Your task to perform on an android device: allow notifications from all sites in the chrome app Image 0: 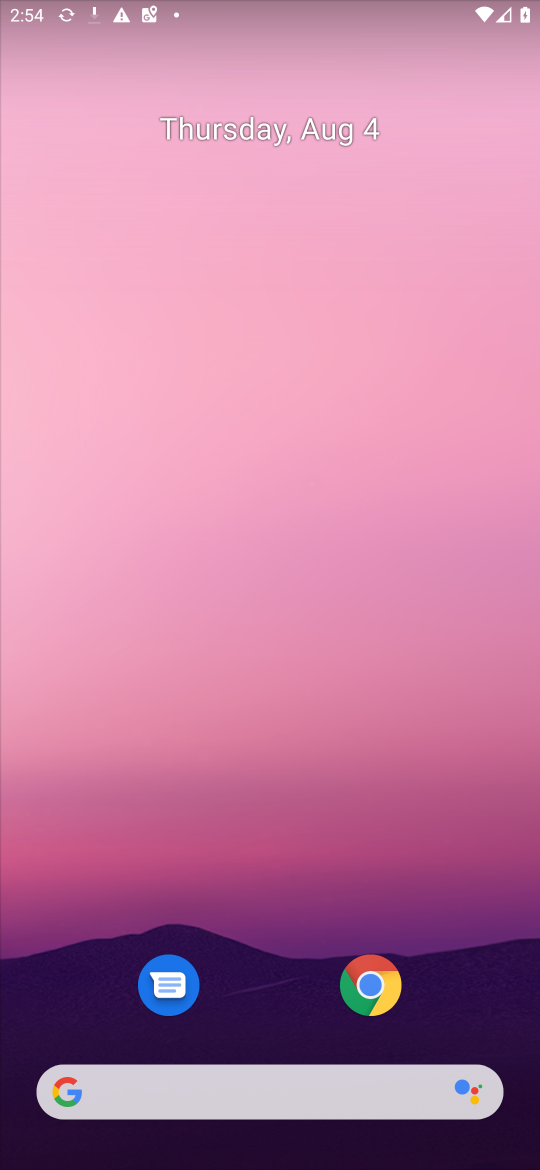
Step 0: click (34, 58)
Your task to perform on an android device: allow notifications from all sites in the chrome app Image 1: 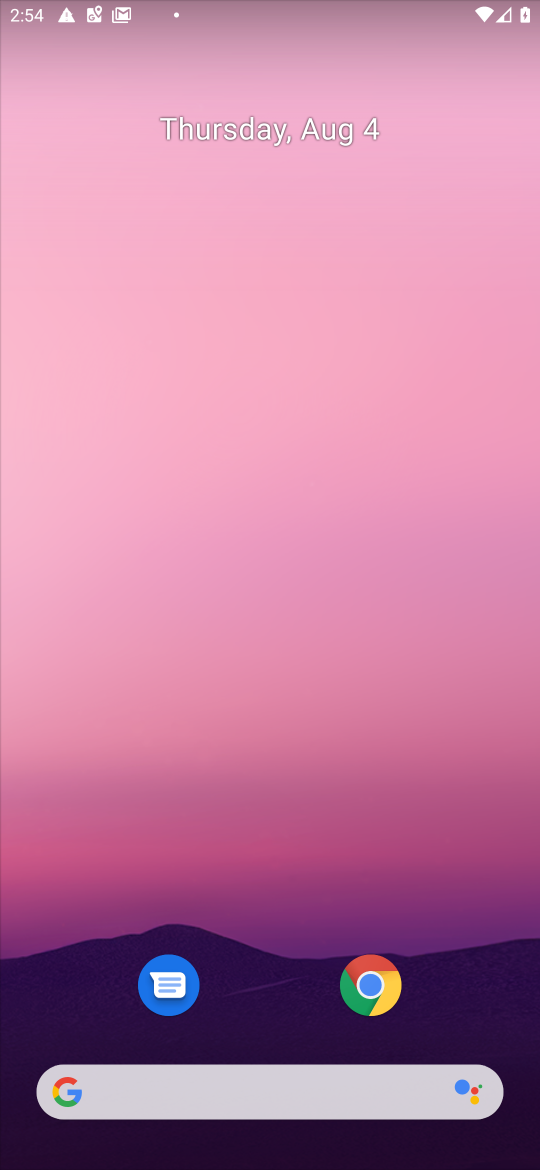
Step 1: drag from (287, 1000) to (216, 38)
Your task to perform on an android device: allow notifications from all sites in the chrome app Image 2: 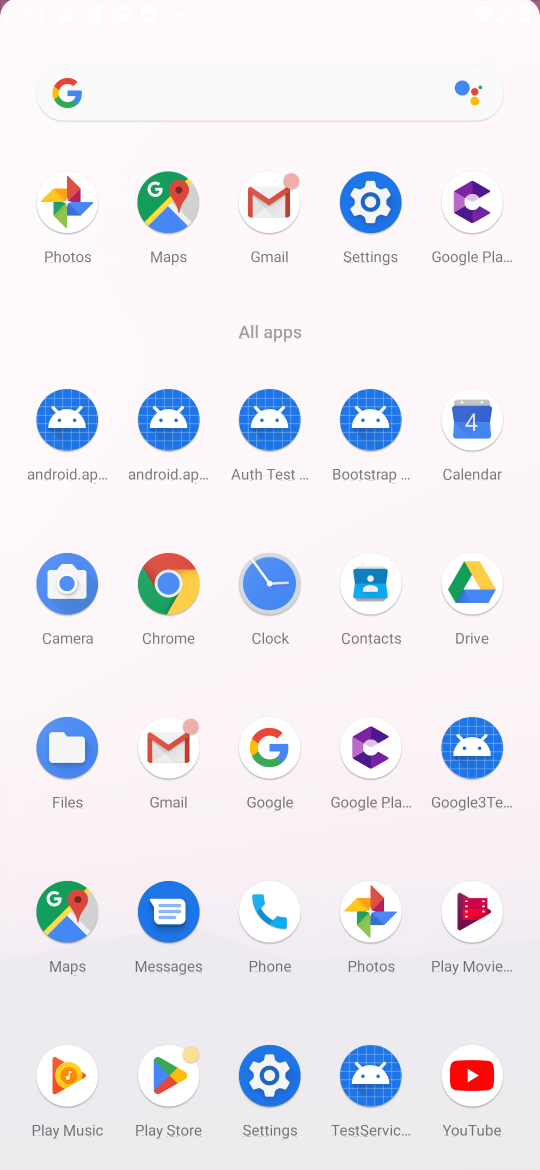
Step 2: drag from (281, 827) to (288, 124)
Your task to perform on an android device: allow notifications from all sites in the chrome app Image 3: 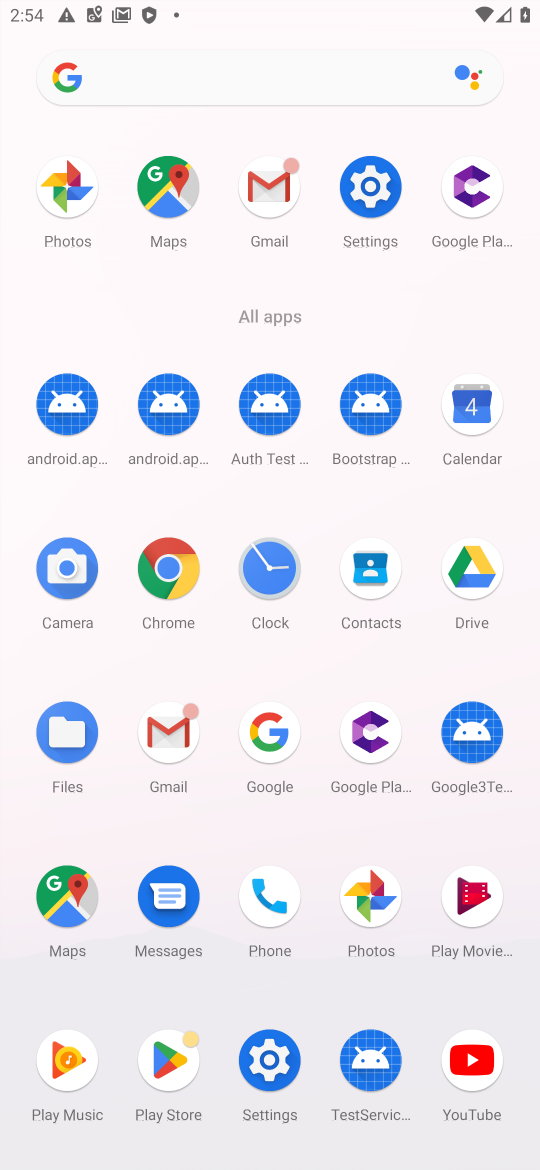
Step 3: click (167, 578)
Your task to perform on an android device: allow notifications from all sites in the chrome app Image 4: 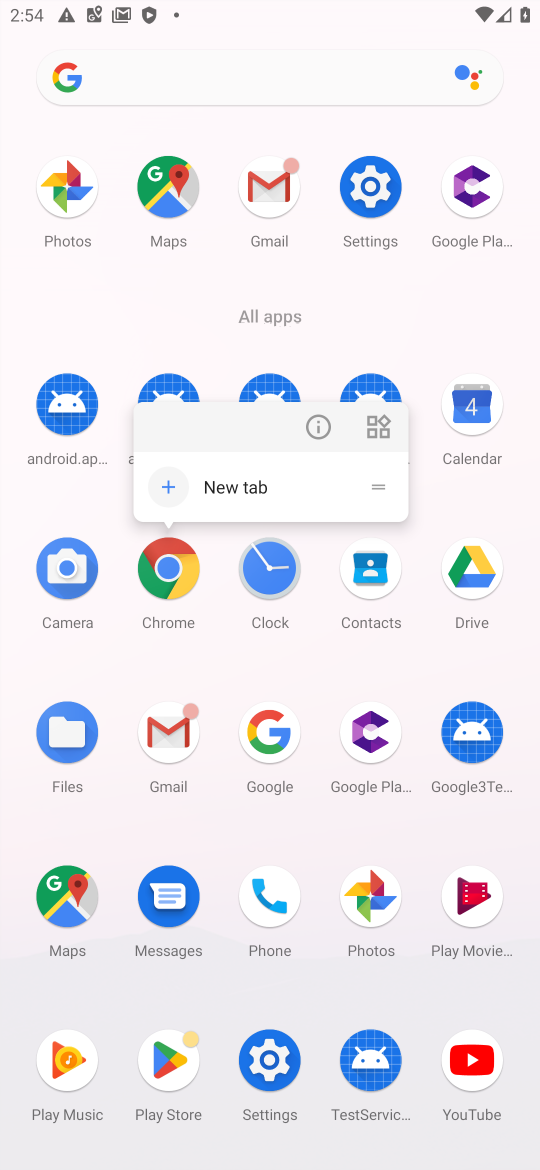
Step 4: click (161, 568)
Your task to perform on an android device: allow notifications from all sites in the chrome app Image 5: 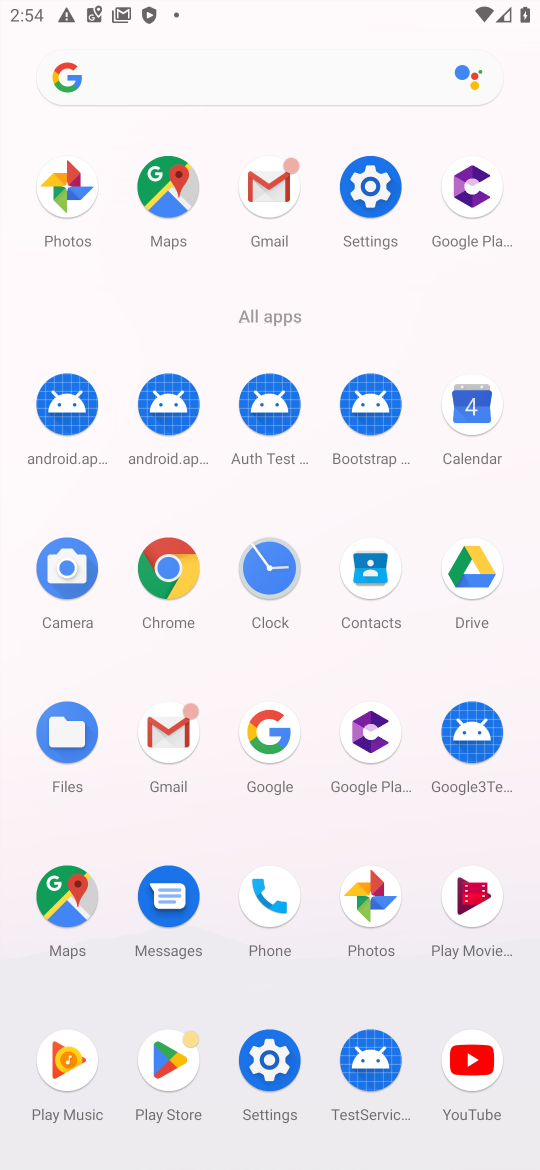
Step 5: click (161, 568)
Your task to perform on an android device: allow notifications from all sites in the chrome app Image 6: 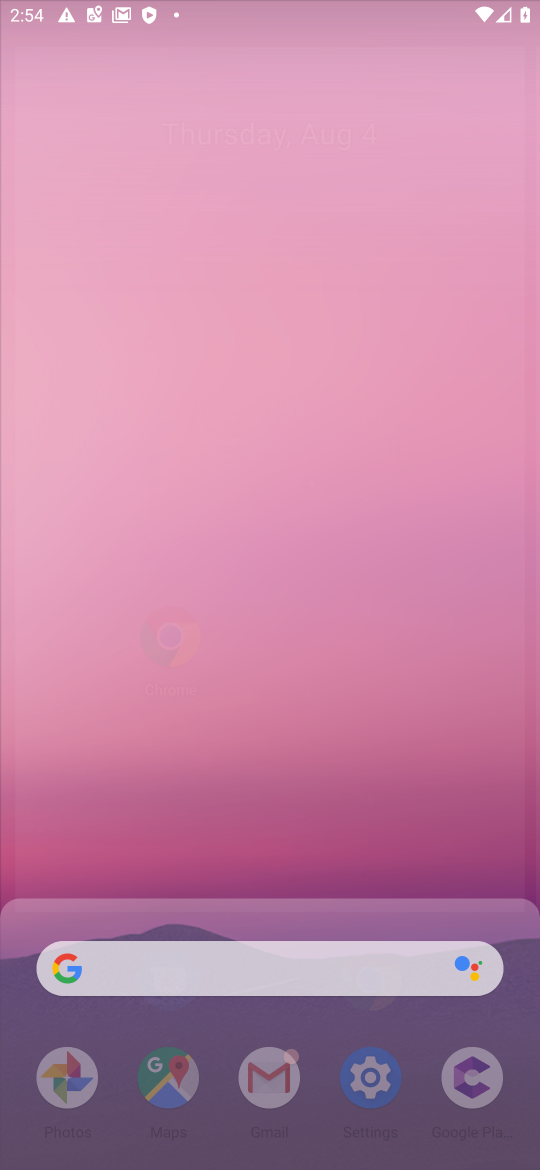
Step 6: click (187, 557)
Your task to perform on an android device: allow notifications from all sites in the chrome app Image 7: 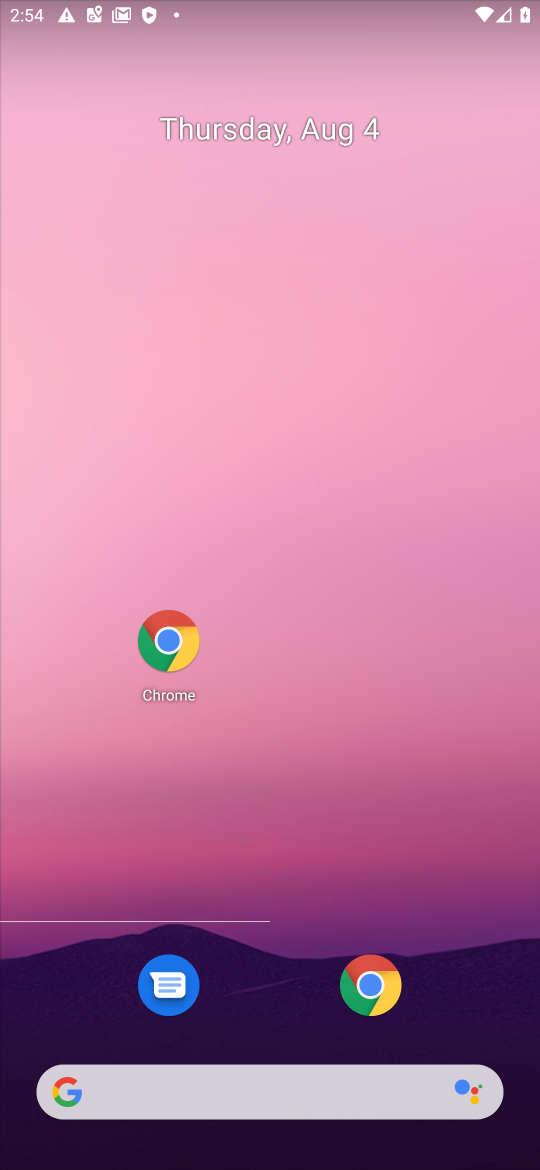
Step 7: drag from (266, 911) to (266, 207)
Your task to perform on an android device: allow notifications from all sites in the chrome app Image 8: 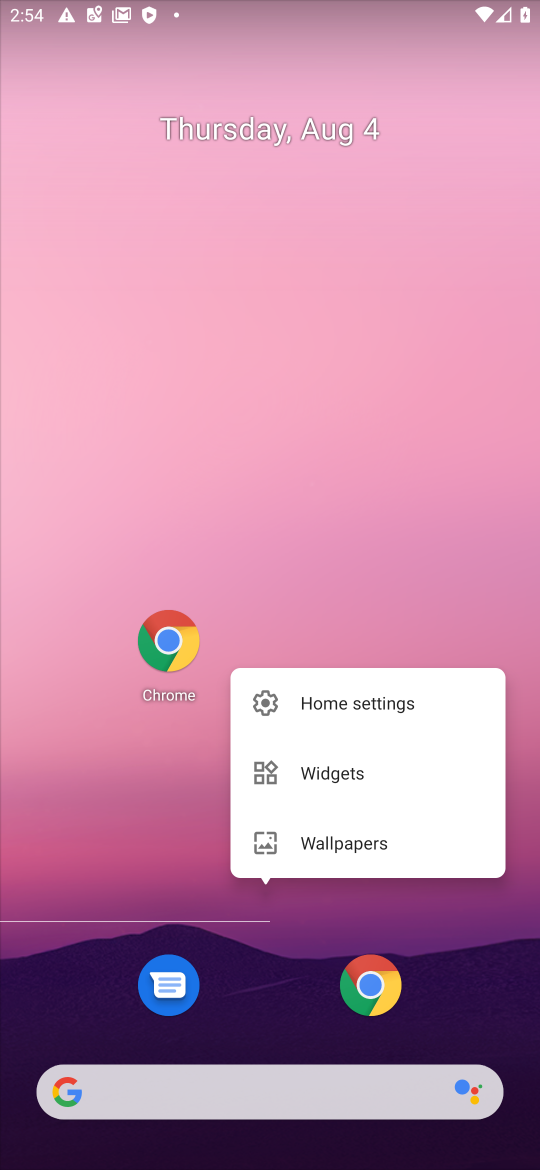
Step 8: drag from (274, 903) to (206, 172)
Your task to perform on an android device: allow notifications from all sites in the chrome app Image 9: 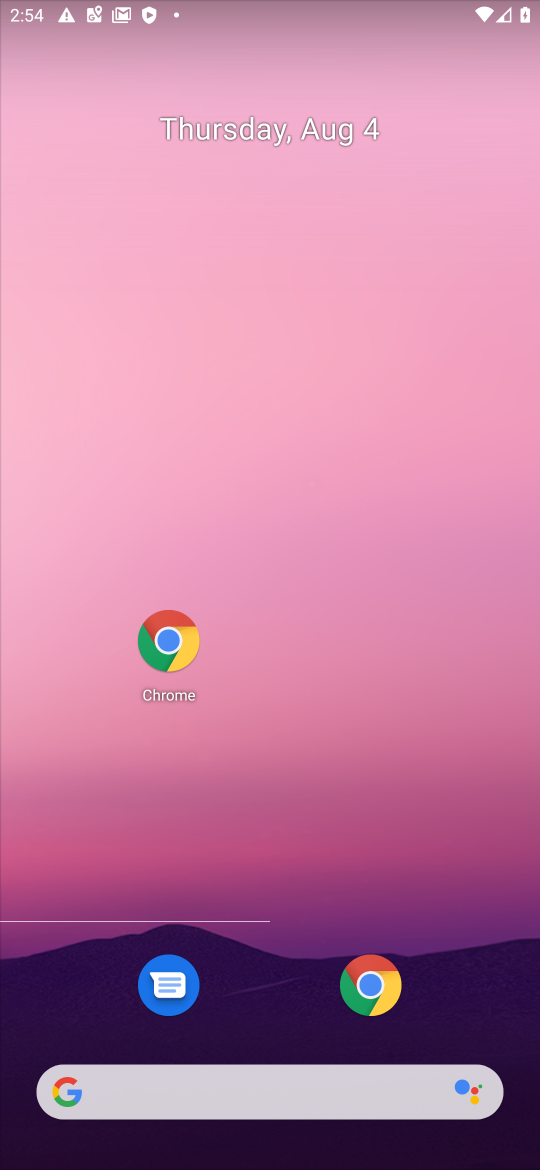
Step 9: drag from (287, 908) to (233, 176)
Your task to perform on an android device: allow notifications from all sites in the chrome app Image 10: 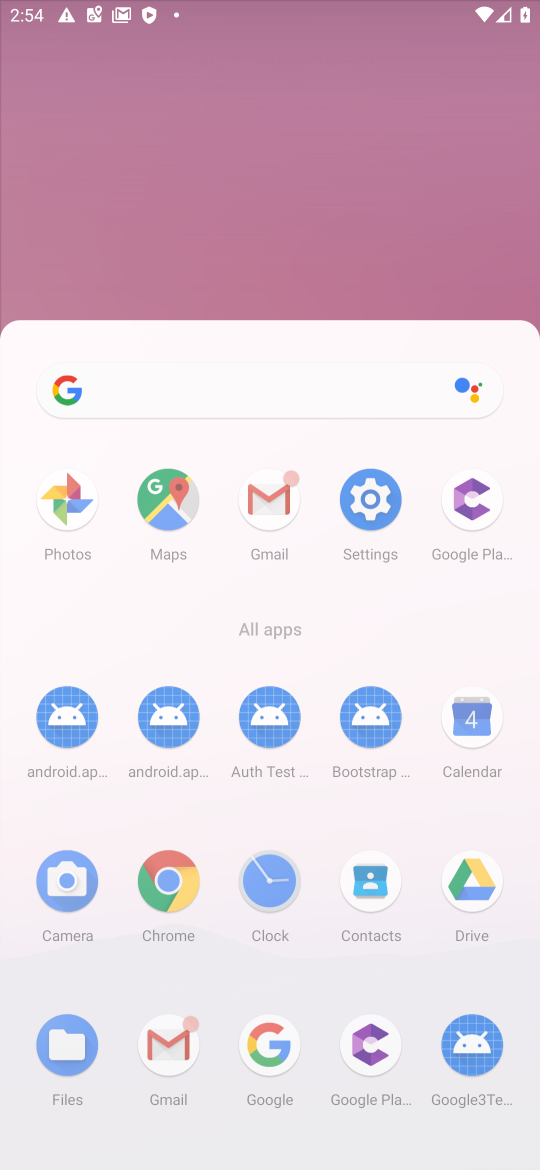
Step 10: click (202, 16)
Your task to perform on an android device: allow notifications from all sites in the chrome app Image 11: 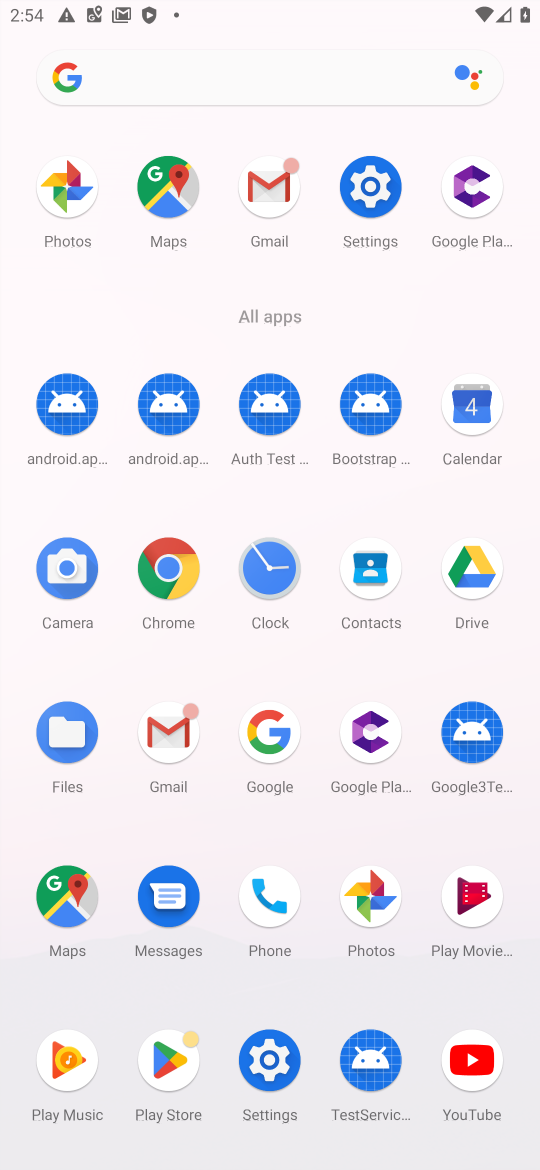
Step 11: click (181, 563)
Your task to perform on an android device: allow notifications from all sites in the chrome app Image 12: 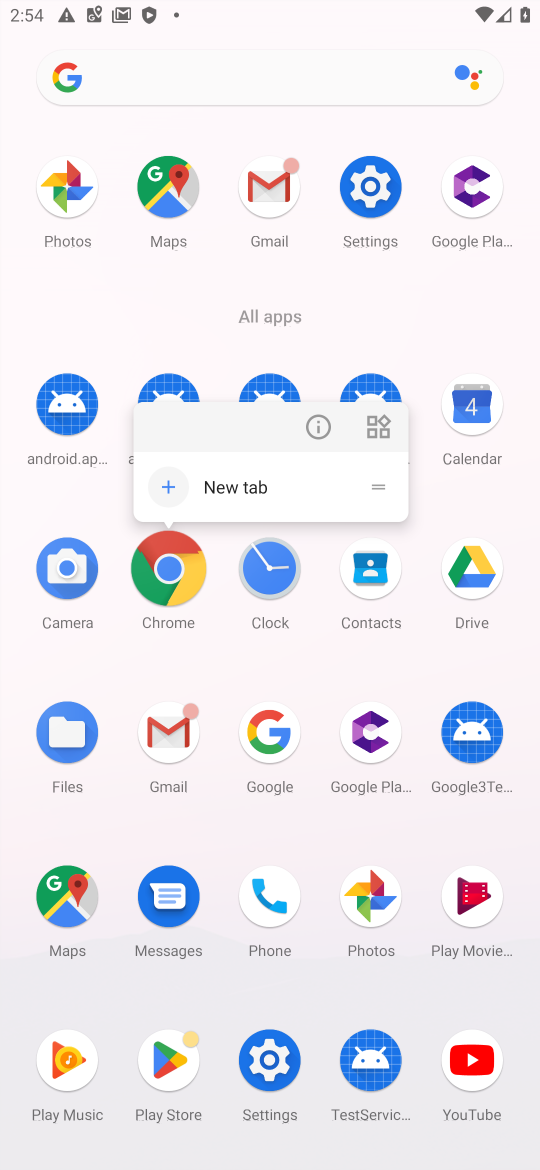
Step 12: click (172, 564)
Your task to perform on an android device: allow notifications from all sites in the chrome app Image 13: 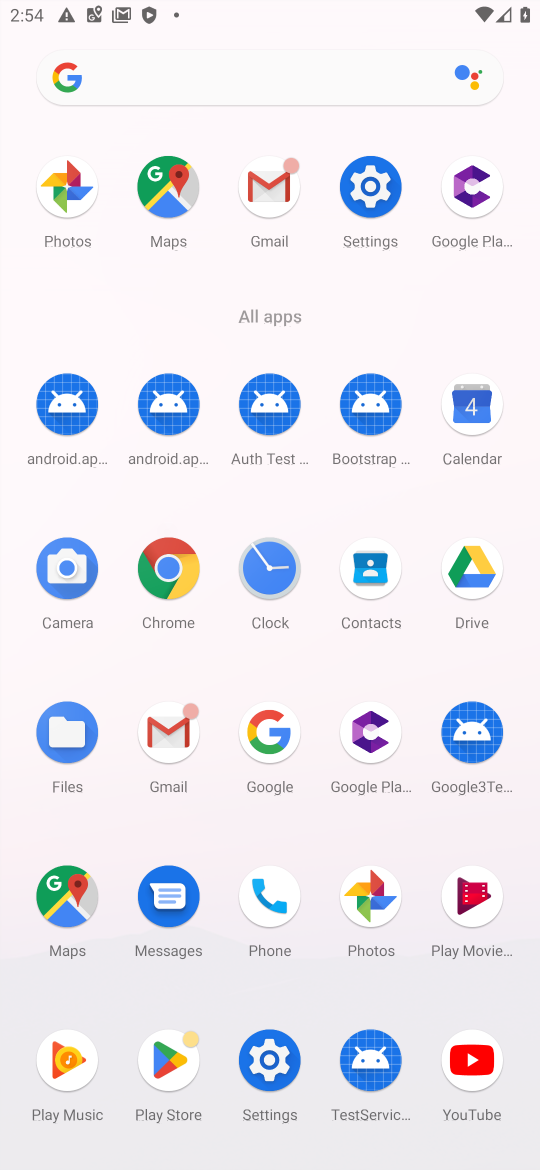
Step 13: click (169, 567)
Your task to perform on an android device: allow notifications from all sites in the chrome app Image 14: 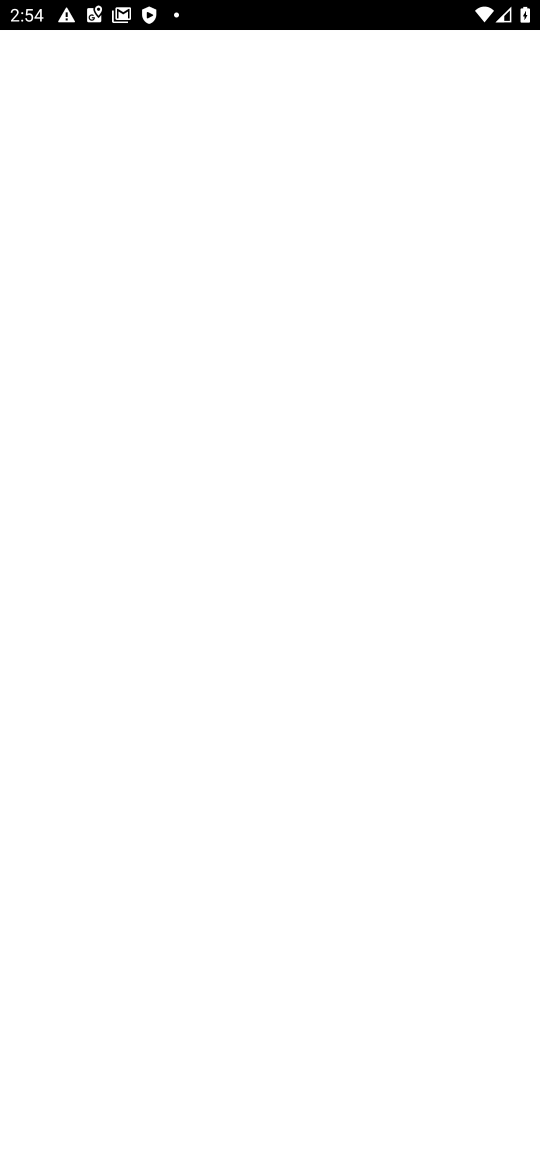
Step 14: click (165, 576)
Your task to perform on an android device: allow notifications from all sites in the chrome app Image 15: 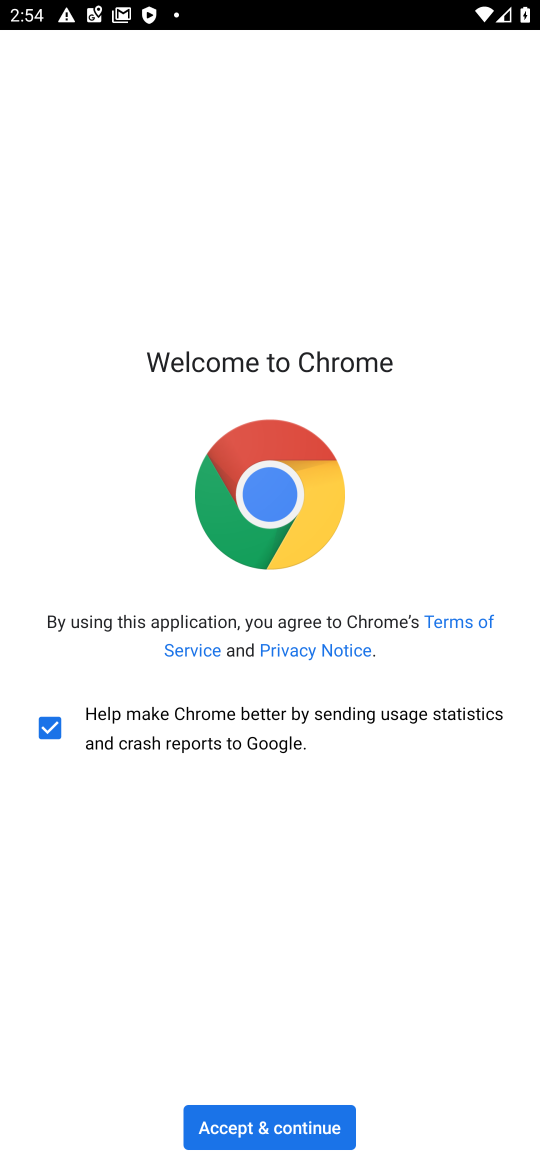
Step 15: click (261, 1123)
Your task to perform on an android device: allow notifications from all sites in the chrome app Image 16: 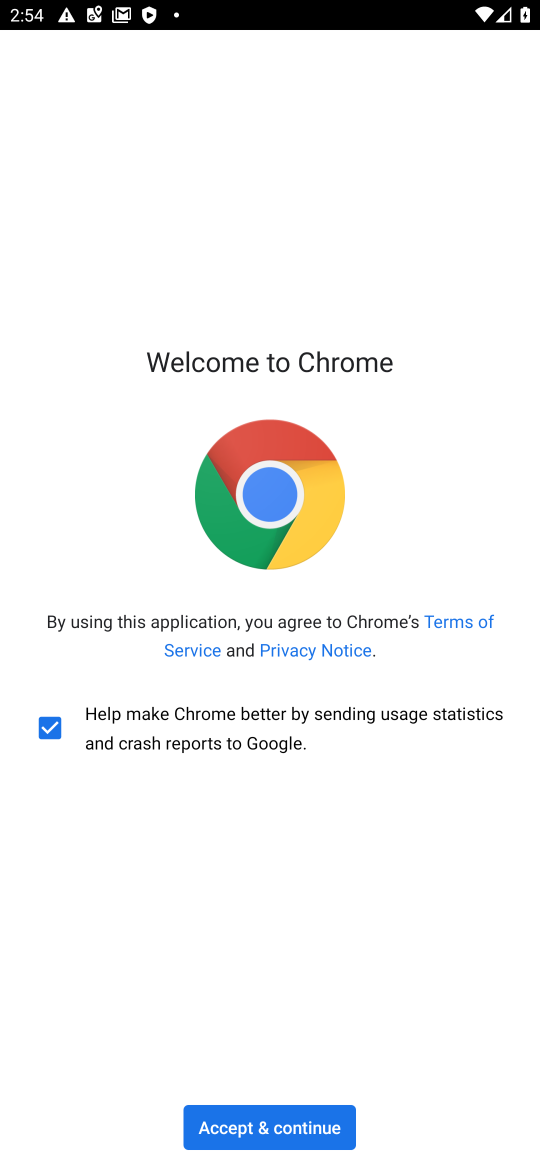
Step 16: click (261, 1123)
Your task to perform on an android device: allow notifications from all sites in the chrome app Image 17: 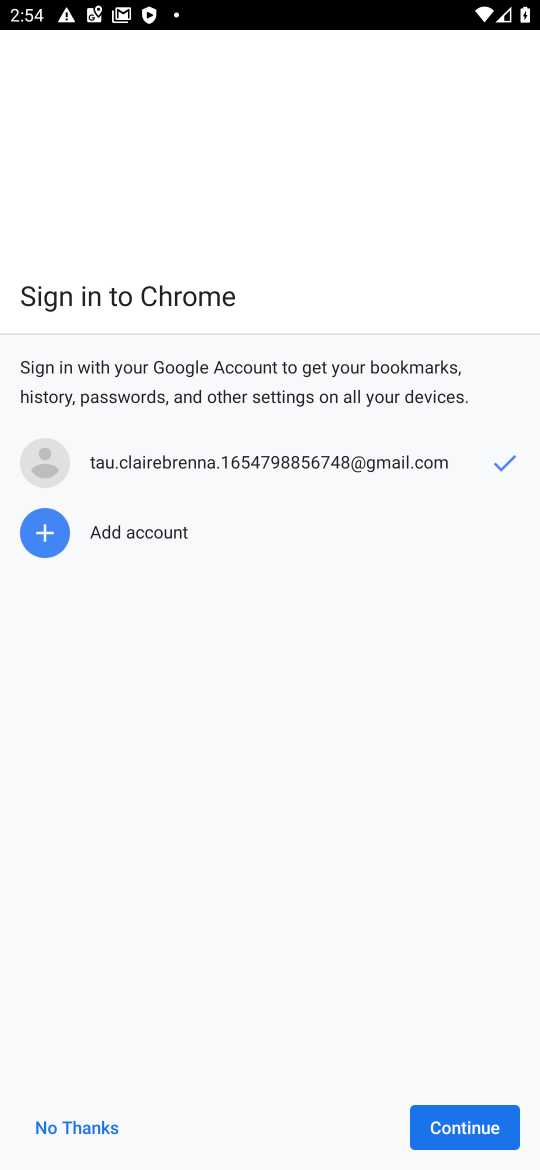
Step 17: click (70, 1115)
Your task to perform on an android device: allow notifications from all sites in the chrome app Image 18: 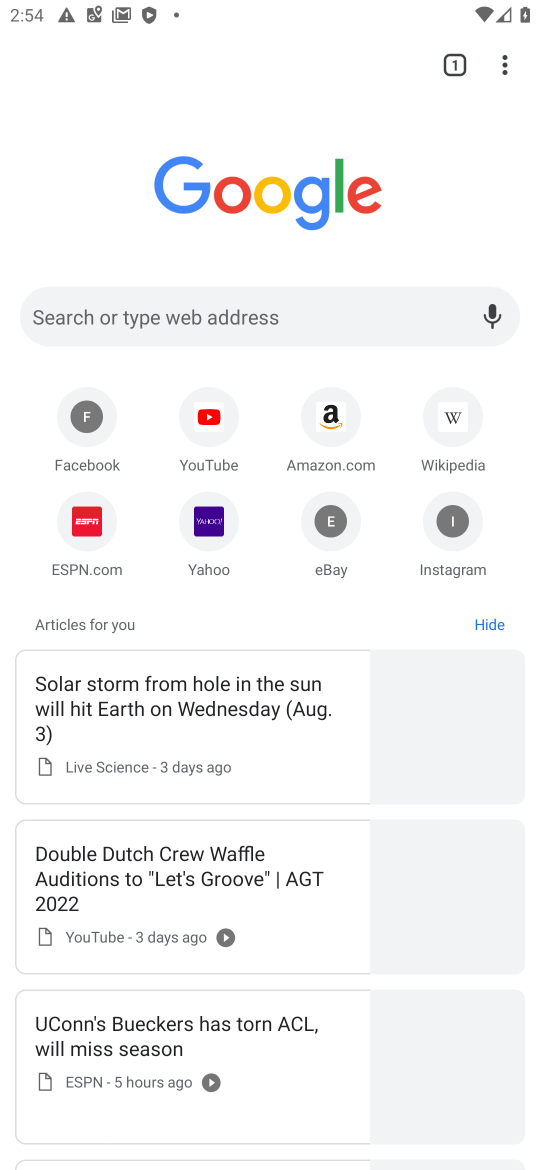
Step 18: click (500, 60)
Your task to perform on an android device: allow notifications from all sites in the chrome app Image 19: 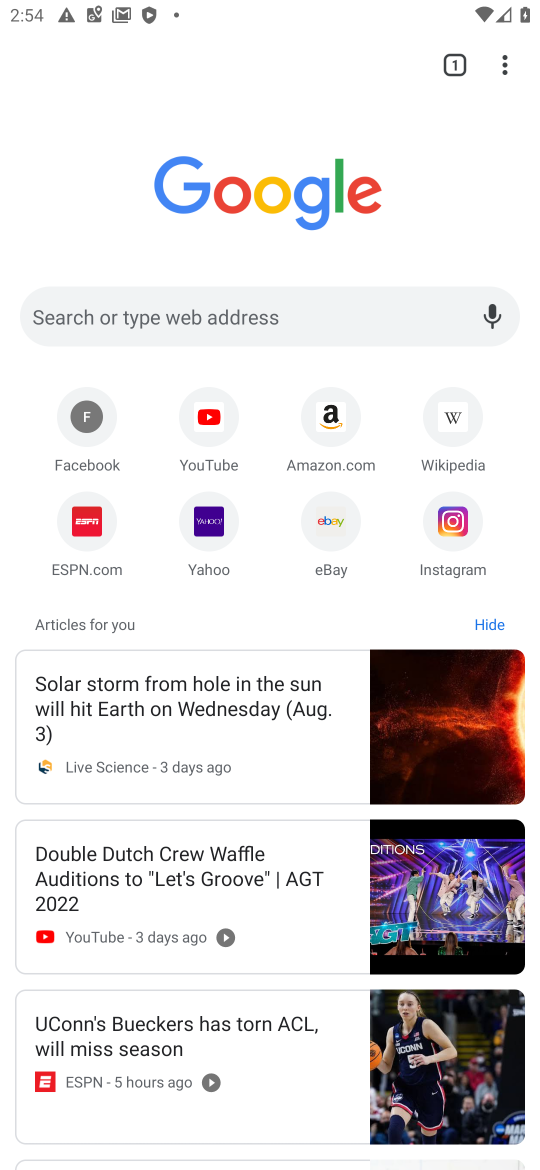
Step 19: drag from (500, 60) to (242, 550)
Your task to perform on an android device: allow notifications from all sites in the chrome app Image 20: 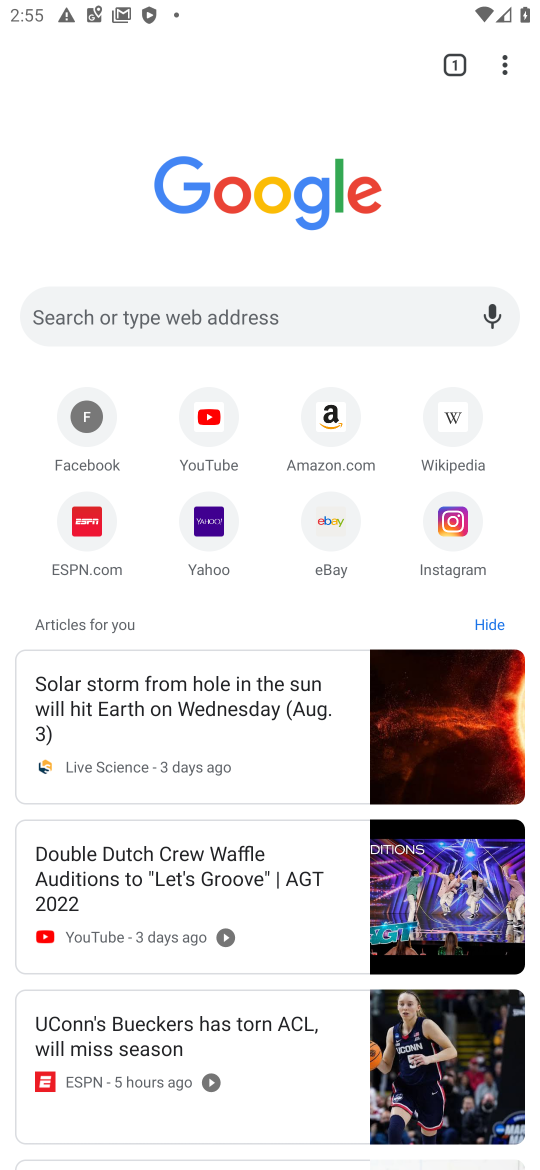
Step 20: click (263, 543)
Your task to perform on an android device: allow notifications from all sites in the chrome app Image 21: 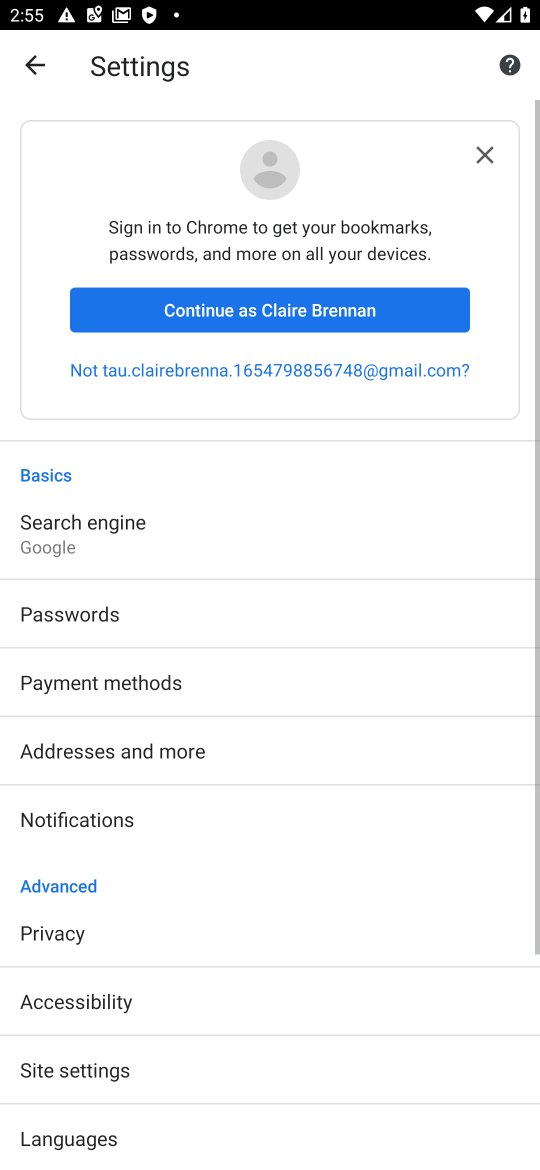
Step 21: click (456, 145)
Your task to perform on an android device: allow notifications from all sites in the chrome app Image 22: 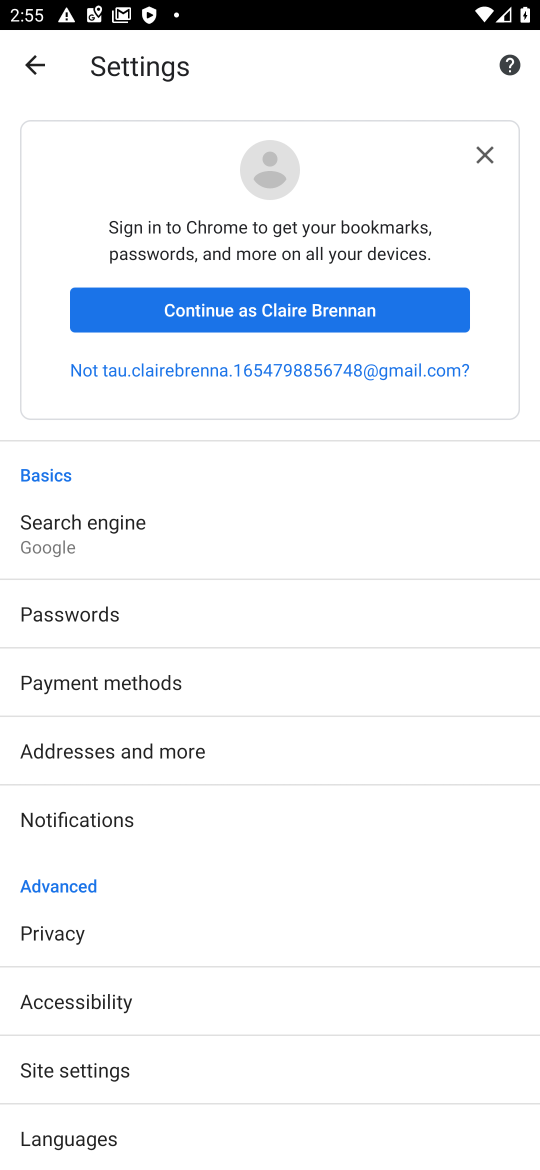
Step 22: click (480, 145)
Your task to perform on an android device: allow notifications from all sites in the chrome app Image 23: 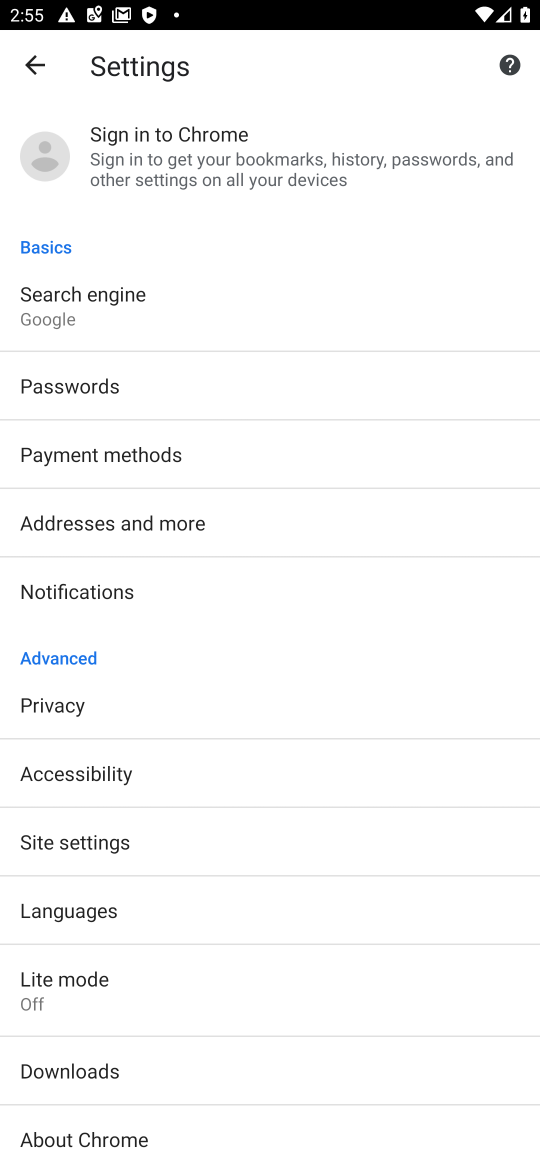
Step 23: click (72, 836)
Your task to perform on an android device: allow notifications from all sites in the chrome app Image 24: 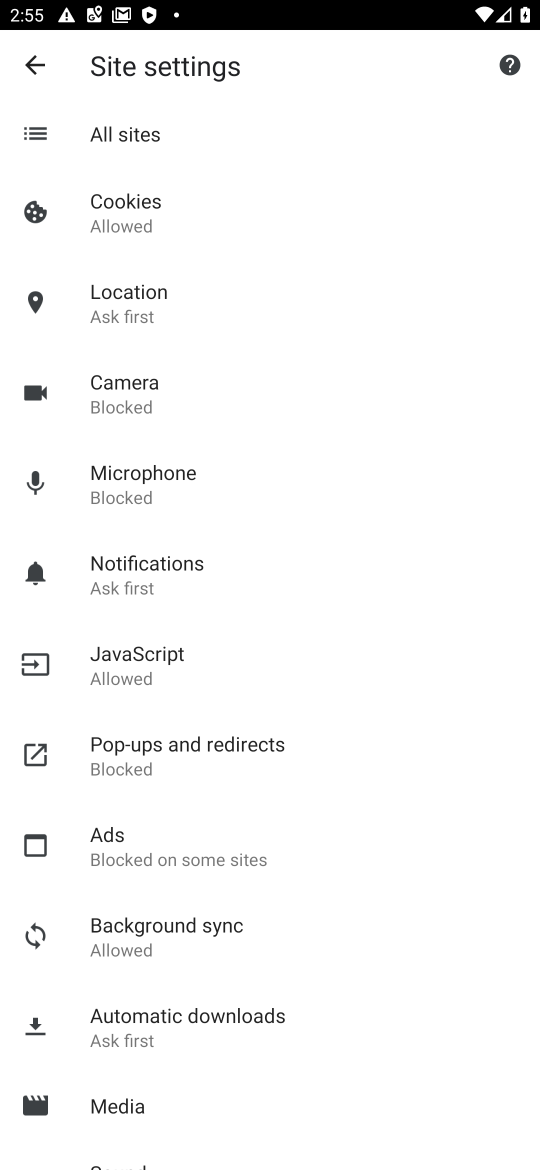
Step 24: drag from (272, 662) to (321, 292)
Your task to perform on an android device: allow notifications from all sites in the chrome app Image 25: 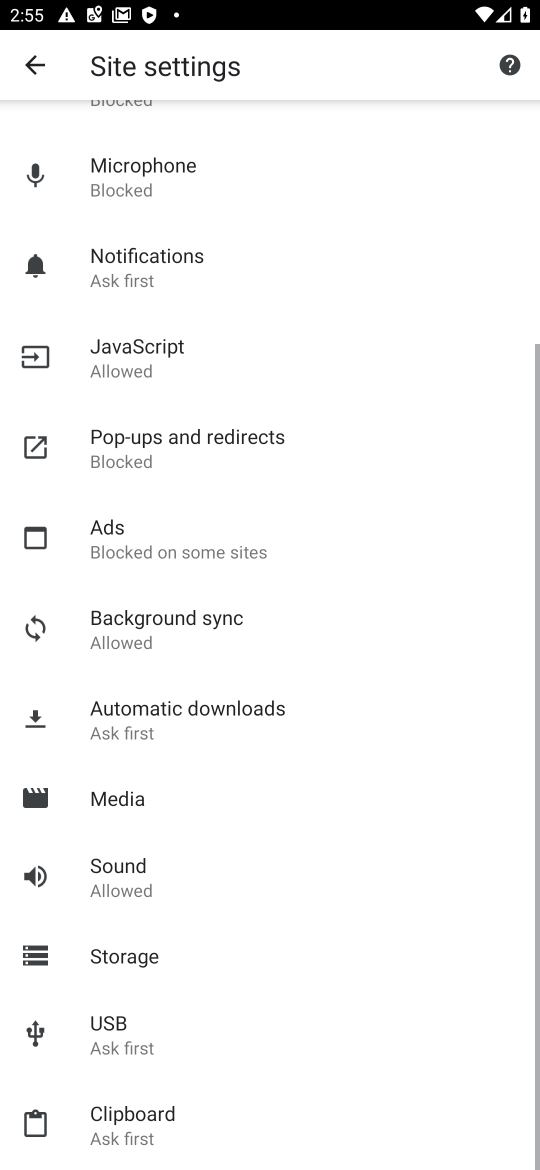
Step 25: drag from (296, 856) to (239, 238)
Your task to perform on an android device: allow notifications from all sites in the chrome app Image 26: 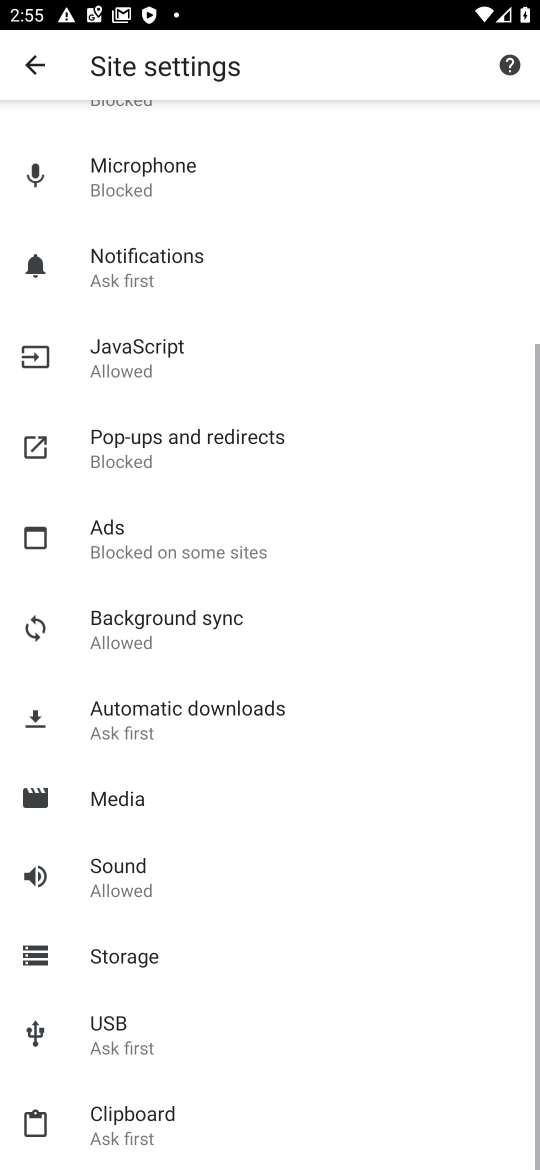
Step 26: click (154, 250)
Your task to perform on an android device: allow notifications from all sites in the chrome app Image 27: 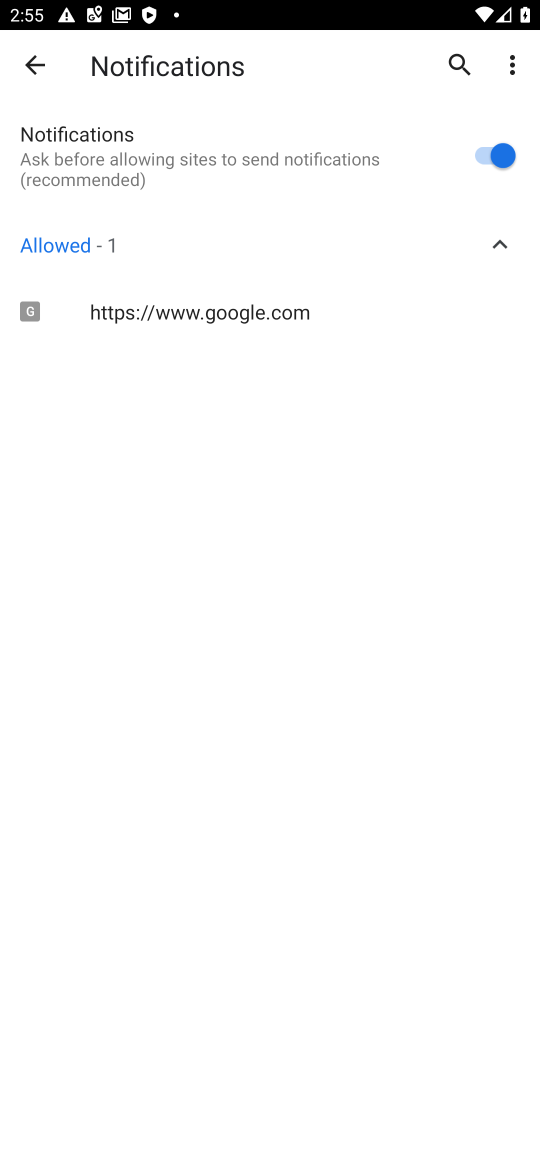
Step 27: task complete